Your task to perform on an android device: Search for good Greek restaurants Image 0: 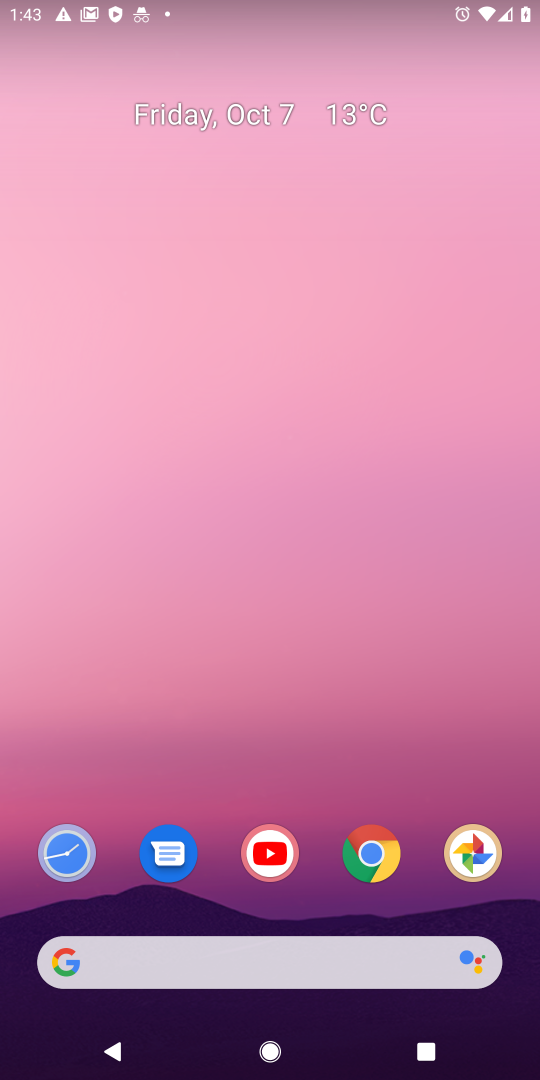
Step 0: drag from (215, 916) to (239, 197)
Your task to perform on an android device: Search for good Greek restaurants Image 1: 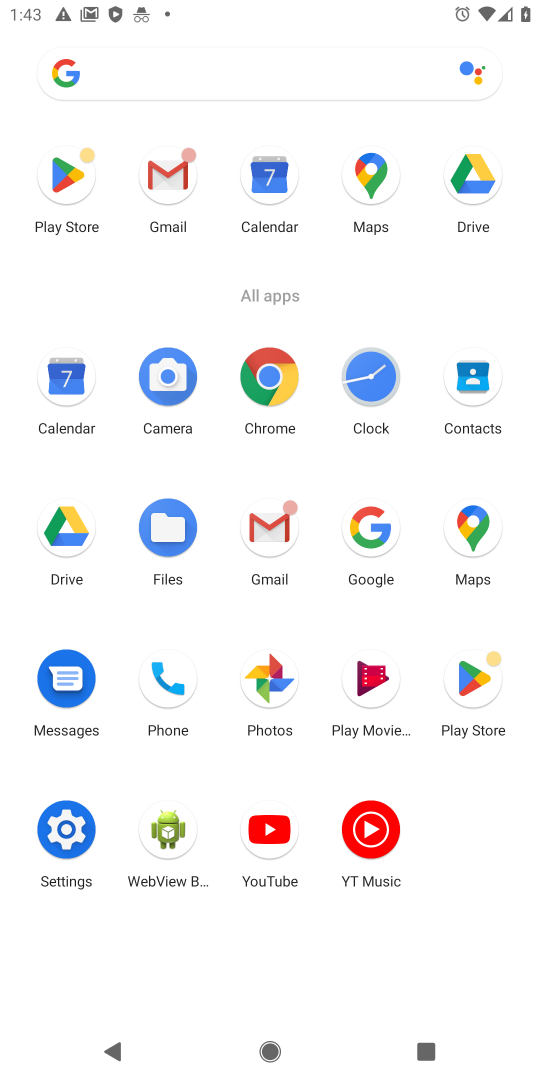
Step 1: click (379, 179)
Your task to perform on an android device: Search for good Greek restaurants Image 2: 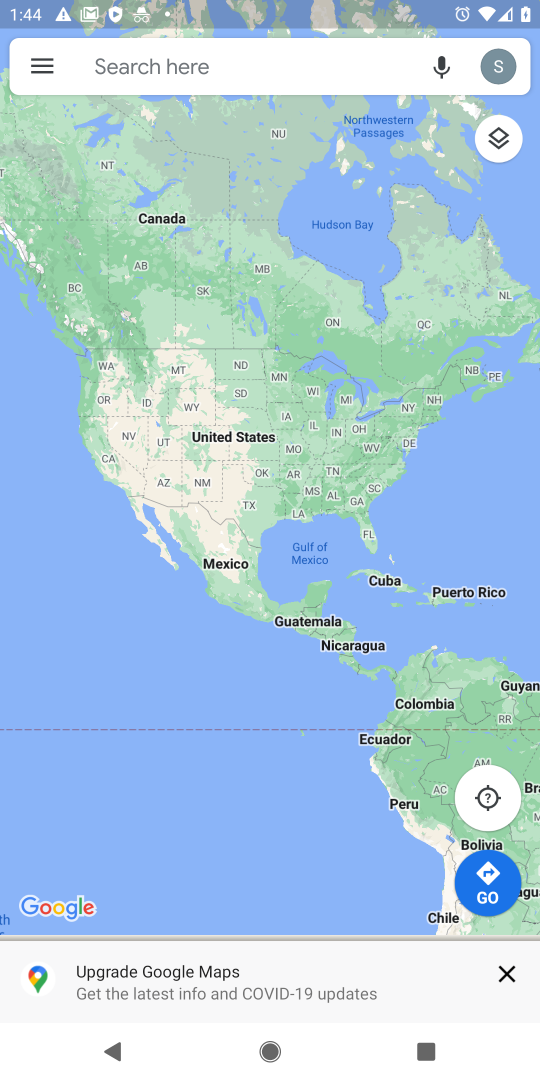
Step 2: click (291, 67)
Your task to perform on an android device: Search for good Greek restaurants Image 3: 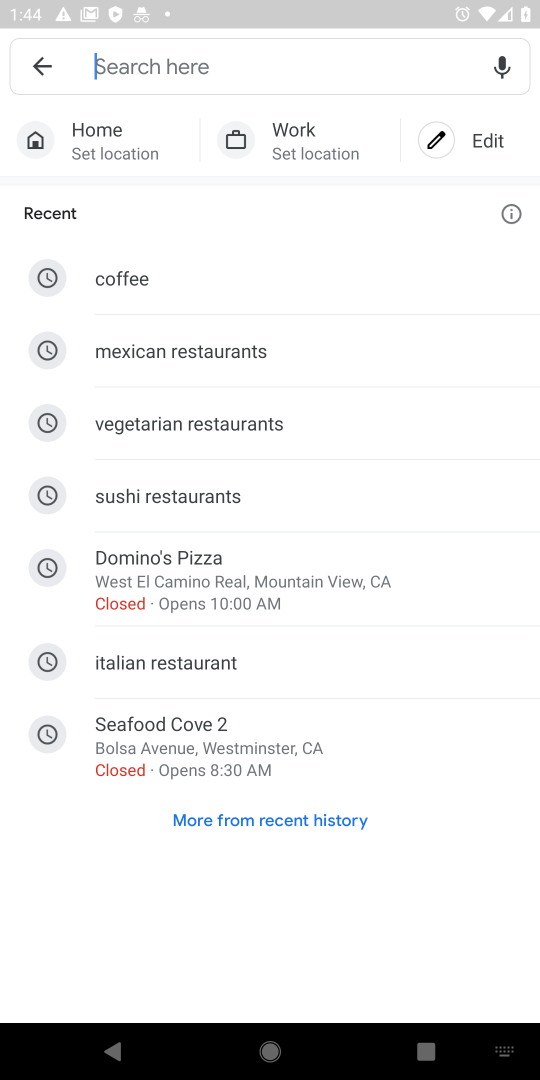
Step 3: type "greek"
Your task to perform on an android device: Search for good Greek restaurants Image 4: 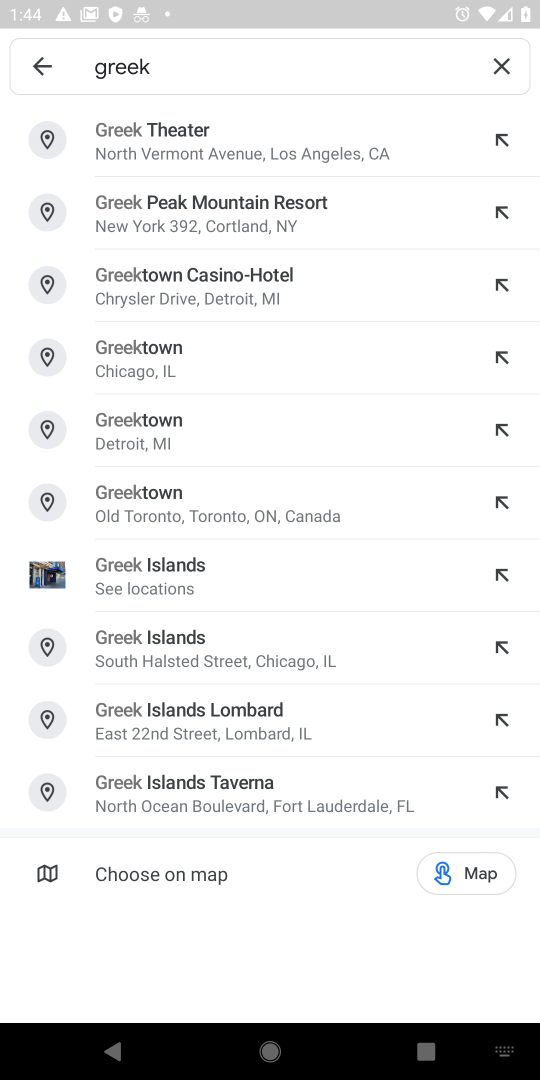
Step 4: type " "
Your task to perform on an android device: Search for good Greek restaurants Image 5: 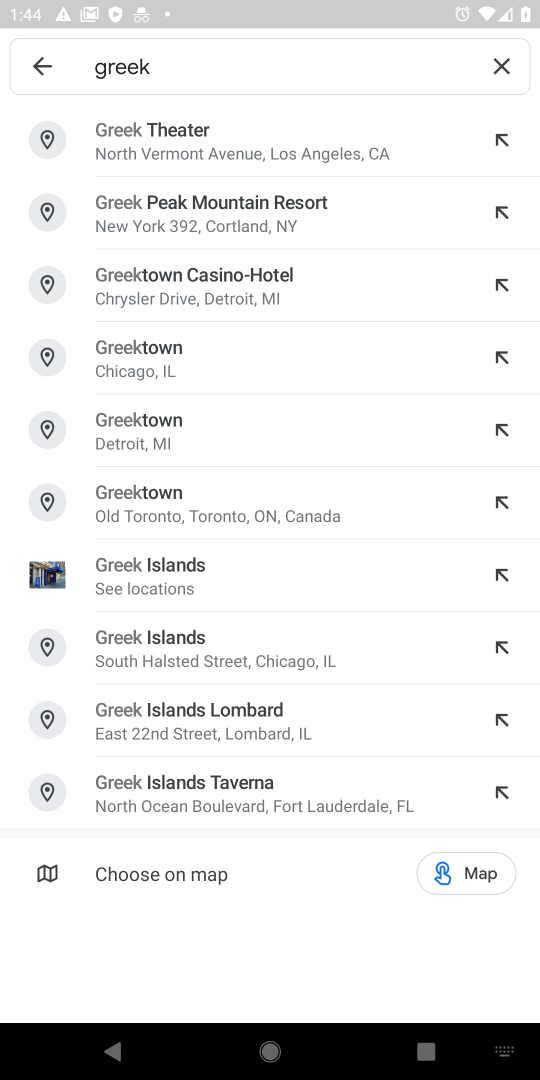
Step 5: click (300, 205)
Your task to perform on an android device: Search for good Greek restaurants Image 6: 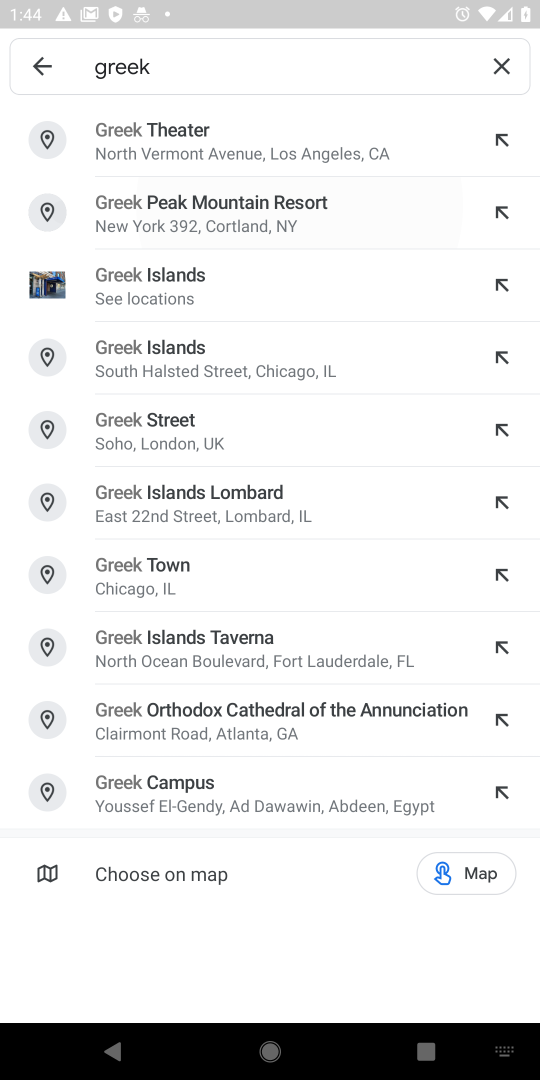
Step 6: task complete